Your task to perform on an android device: see tabs open on other devices in the chrome app Image 0: 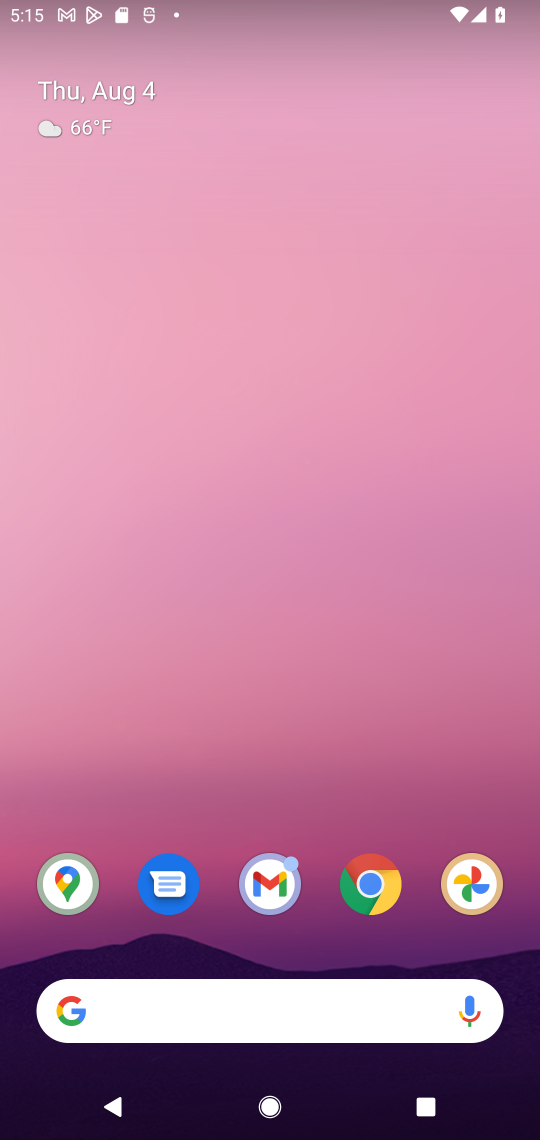
Step 0: click (374, 882)
Your task to perform on an android device: see tabs open on other devices in the chrome app Image 1: 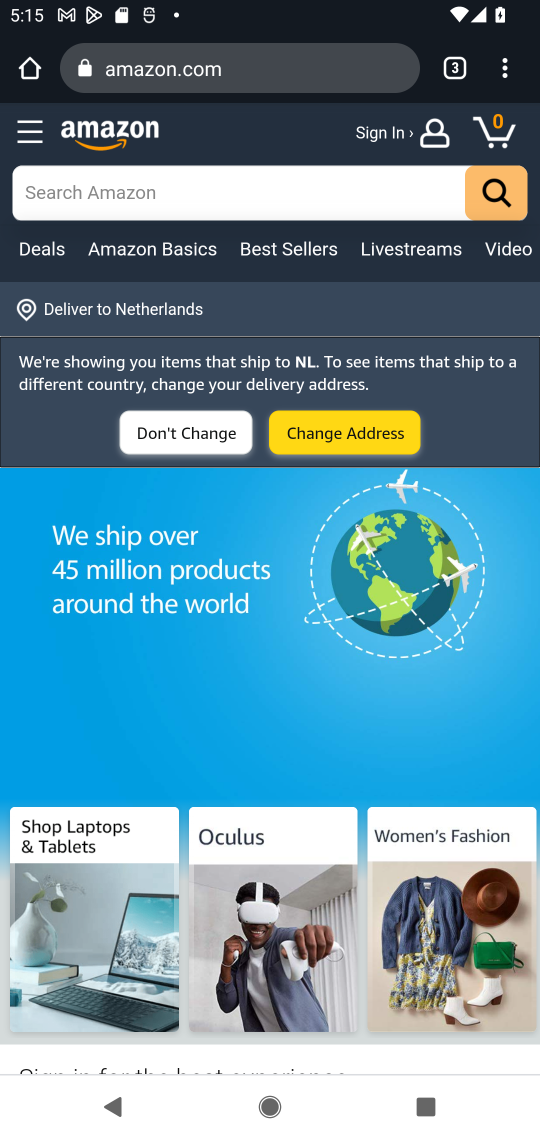
Step 1: click (507, 75)
Your task to perform on an android device: see tabs open on other devices in the chrome app Image 2: 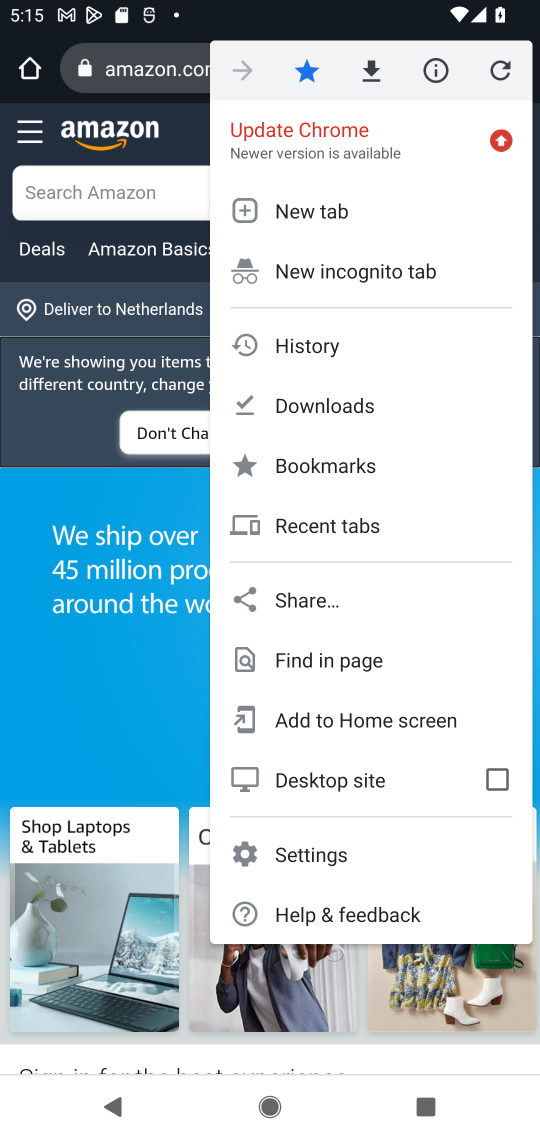
Step 2: click (320, 847)
Your task to perform on an android device: see tabs open on other devices in the chrome app Image 3: 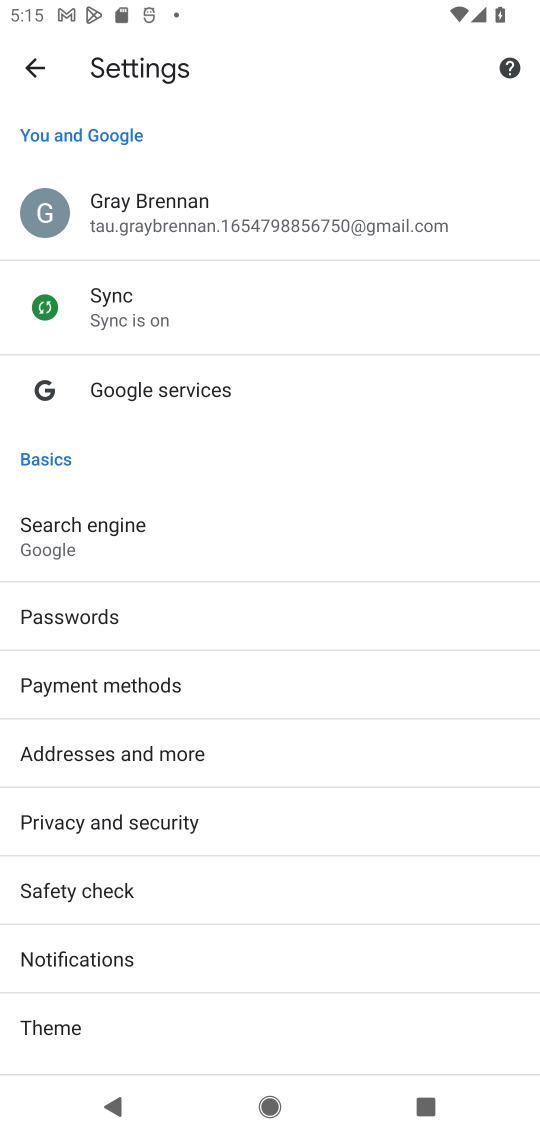
Step 3: task complete